Your task to perform on an android device: View the shopping cart on walmart. Search for asus rog on walmart, select the first entry, and add it to the cart. Image 0: 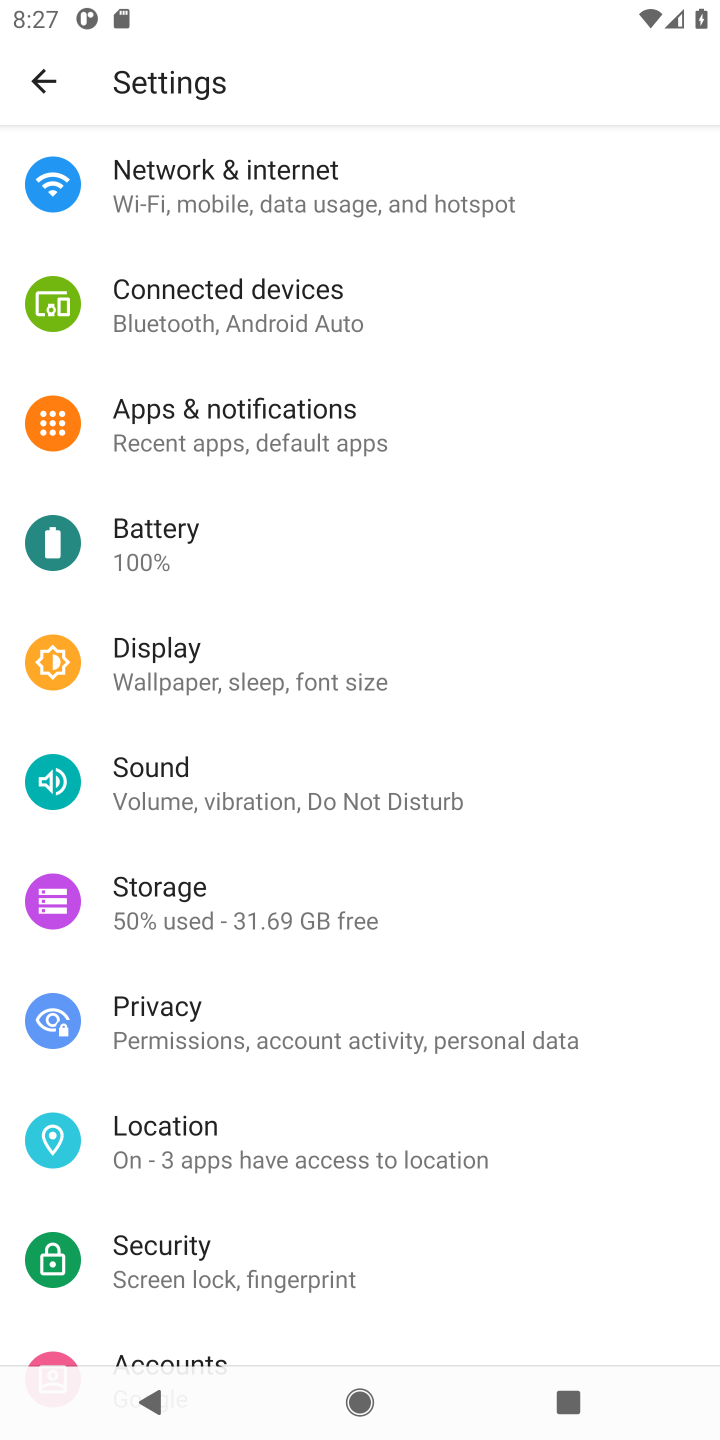
Step 0: press home button
Your task to perform on an android device: View the shopping cart on walmart. Search for asus rog on walmart, select the first entry, and add it to the cart. Image 1: 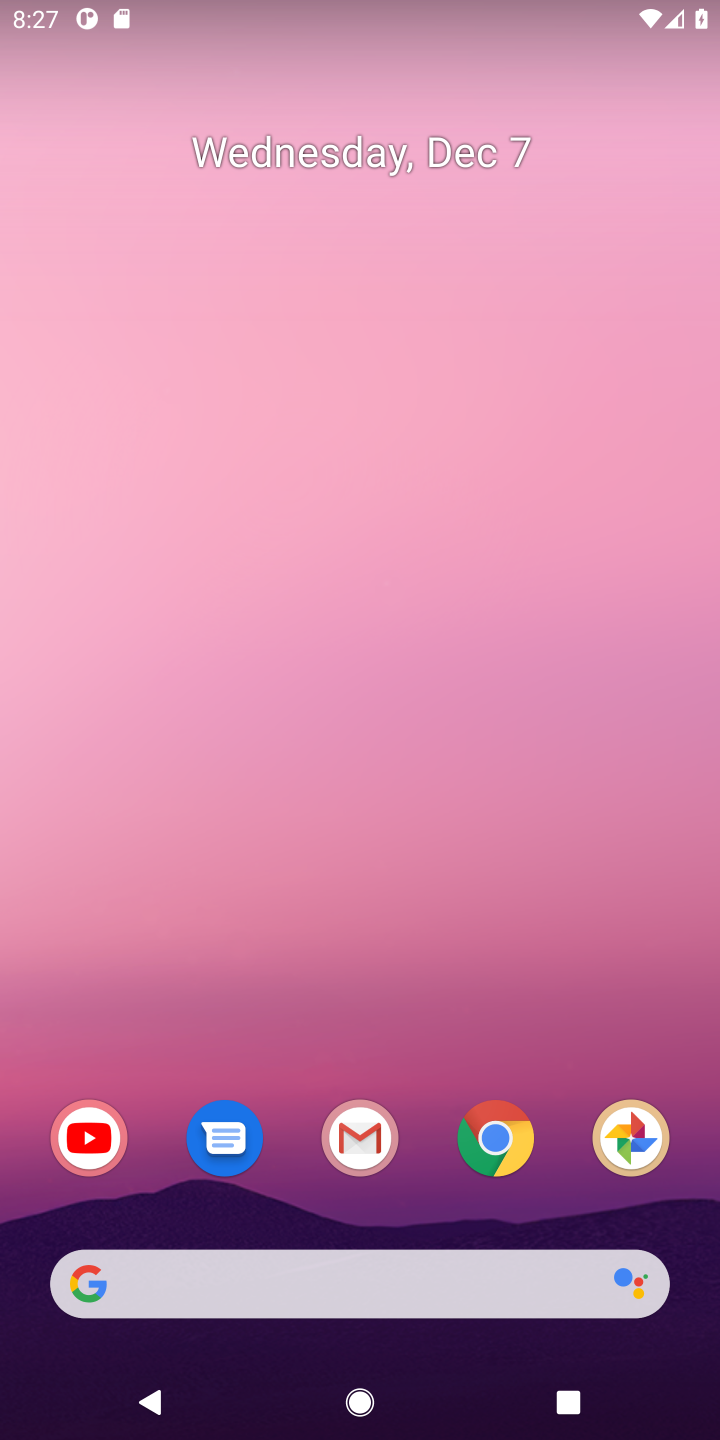
Step 1: click (168, 1275)
Your task to perform on an android device: View the shopping cart on walmart. Search for asus rog on walmart, select the first entry, and add it to the cart. Image 2: 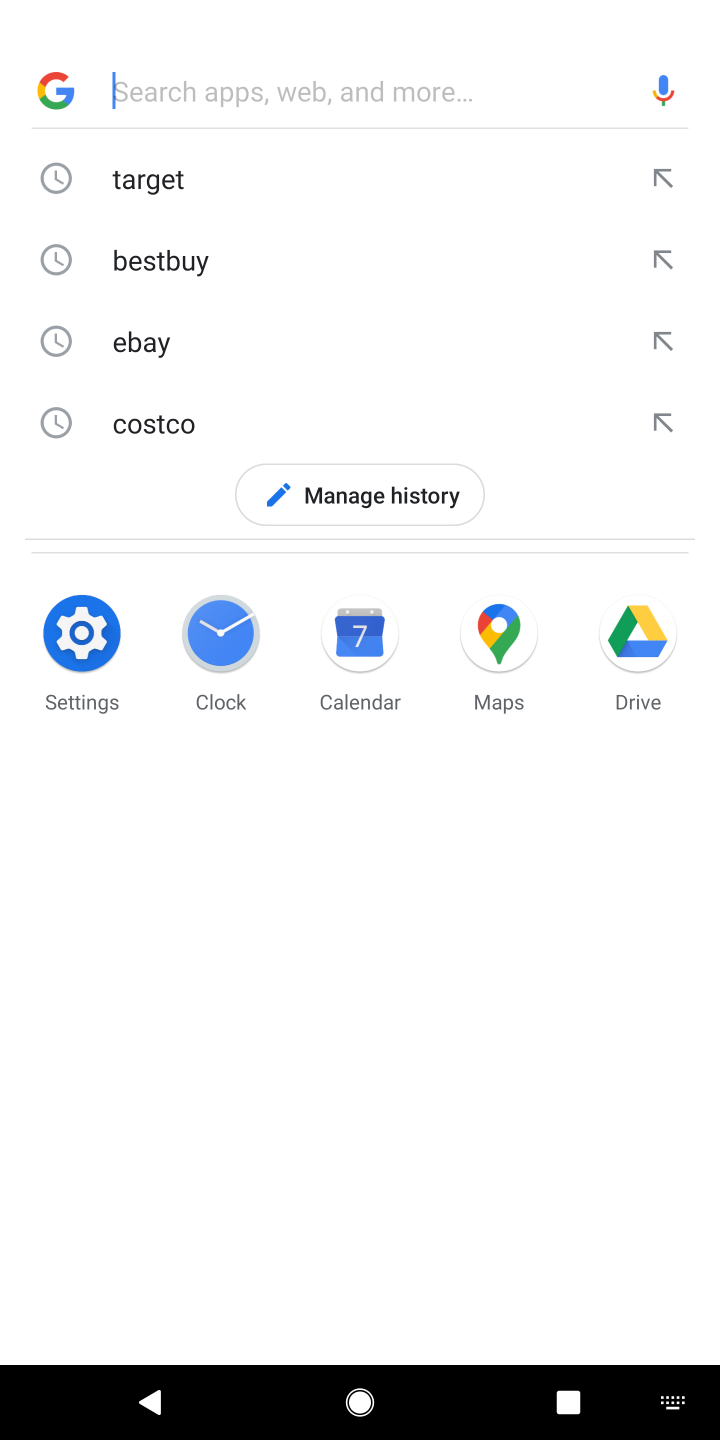
Step 2: type "walmart."
Your task to perform on an android device: View the shopping cart on walmart. Search for asus rog on walmart, select the first entry, and add it to the cart. Image 3: 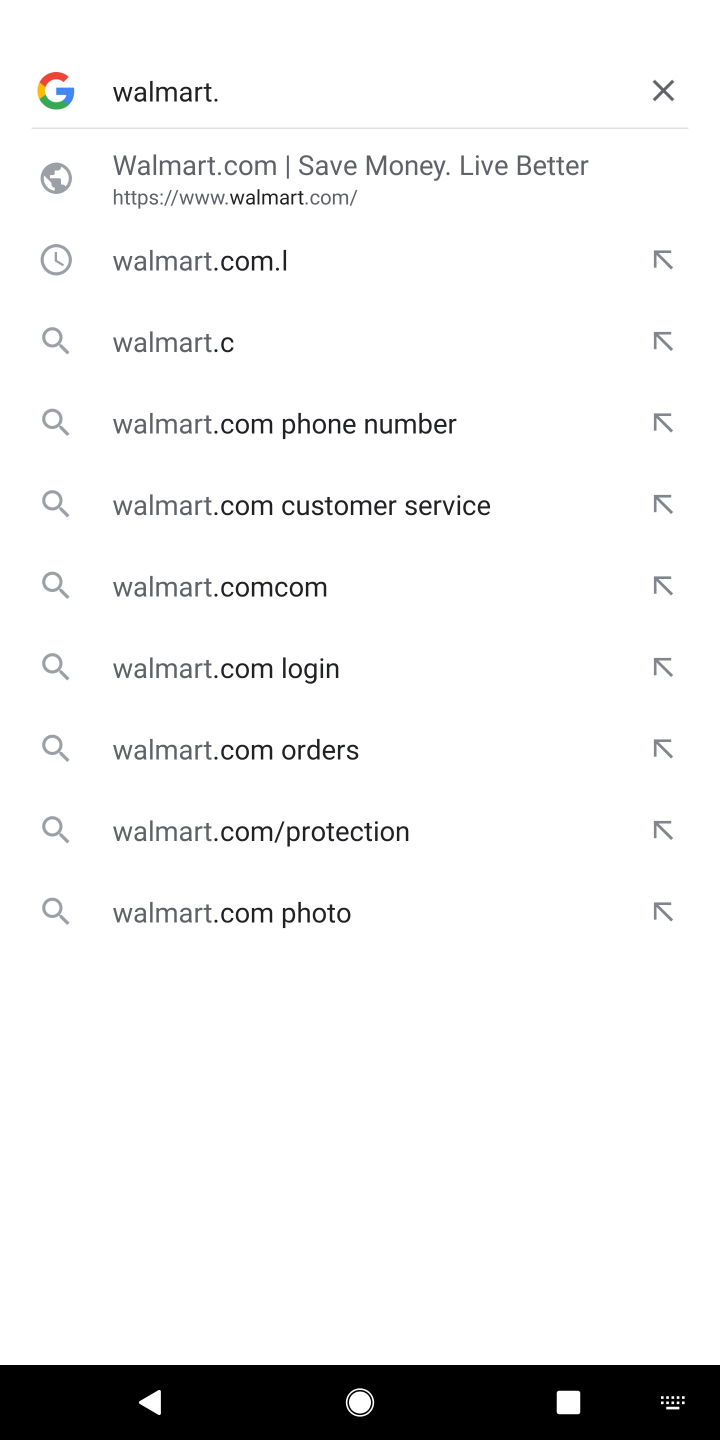
Step 3: press enter
Your task to perform on an android device: View the shopping cart on walmart. Search for asus rog on walmart, select the first entry, and add it to the cart. Image 4: 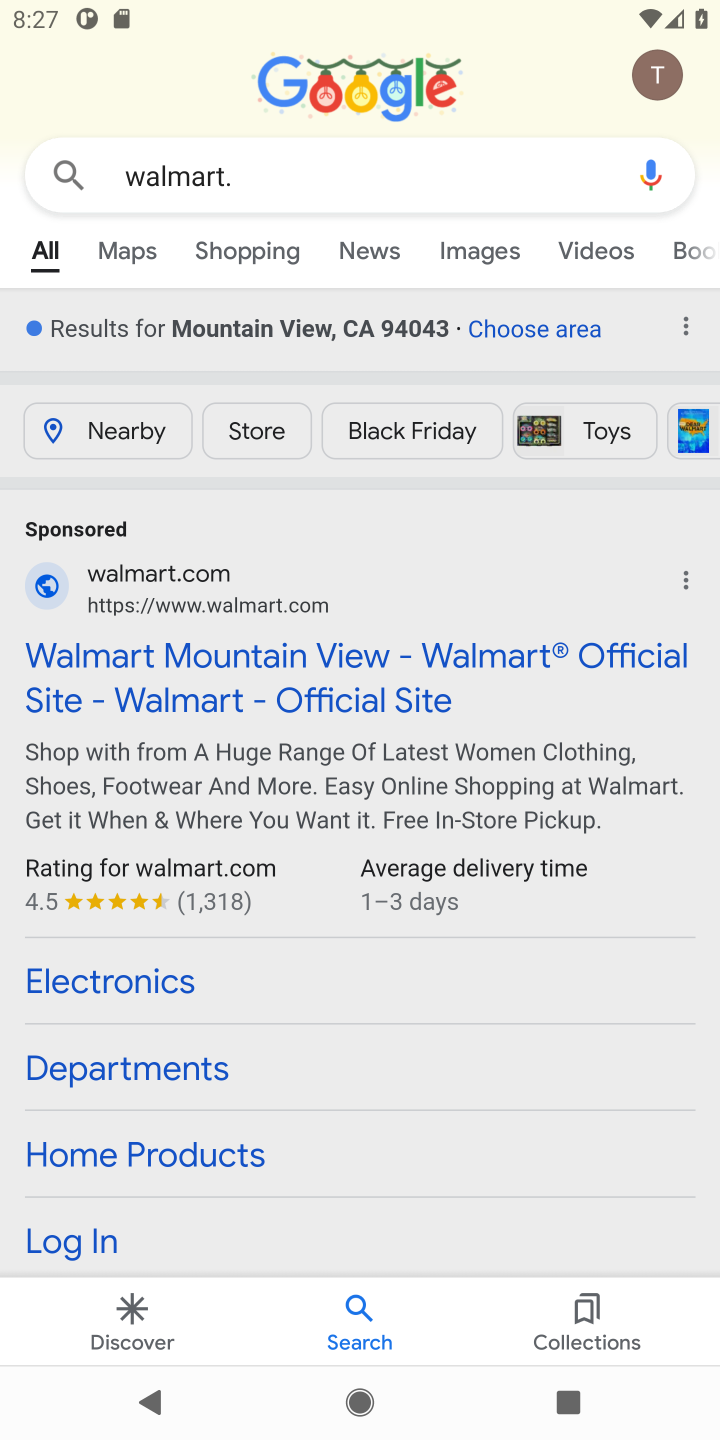
Step 4: click (340, 679)
Your task to perform on an android device: View the shopping cart on walmart. Search for asus rog on walmart, select the first entry, and add it to the cart. Image 5: 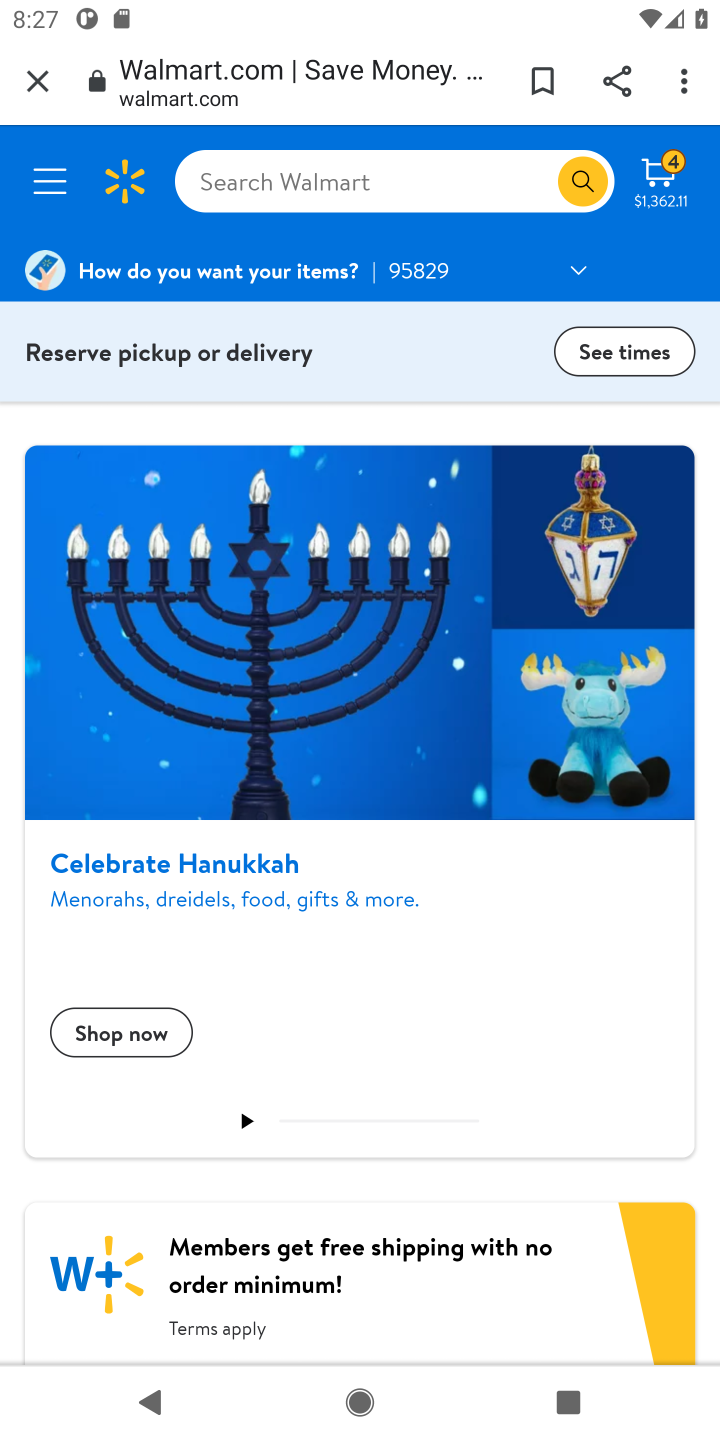
Step 5: click (658, 163)
Your task to perform on an android device: View the shopping cart on walmart. Search for asus rog on walmart, select the first entry, and add it to the cart. Image 6: 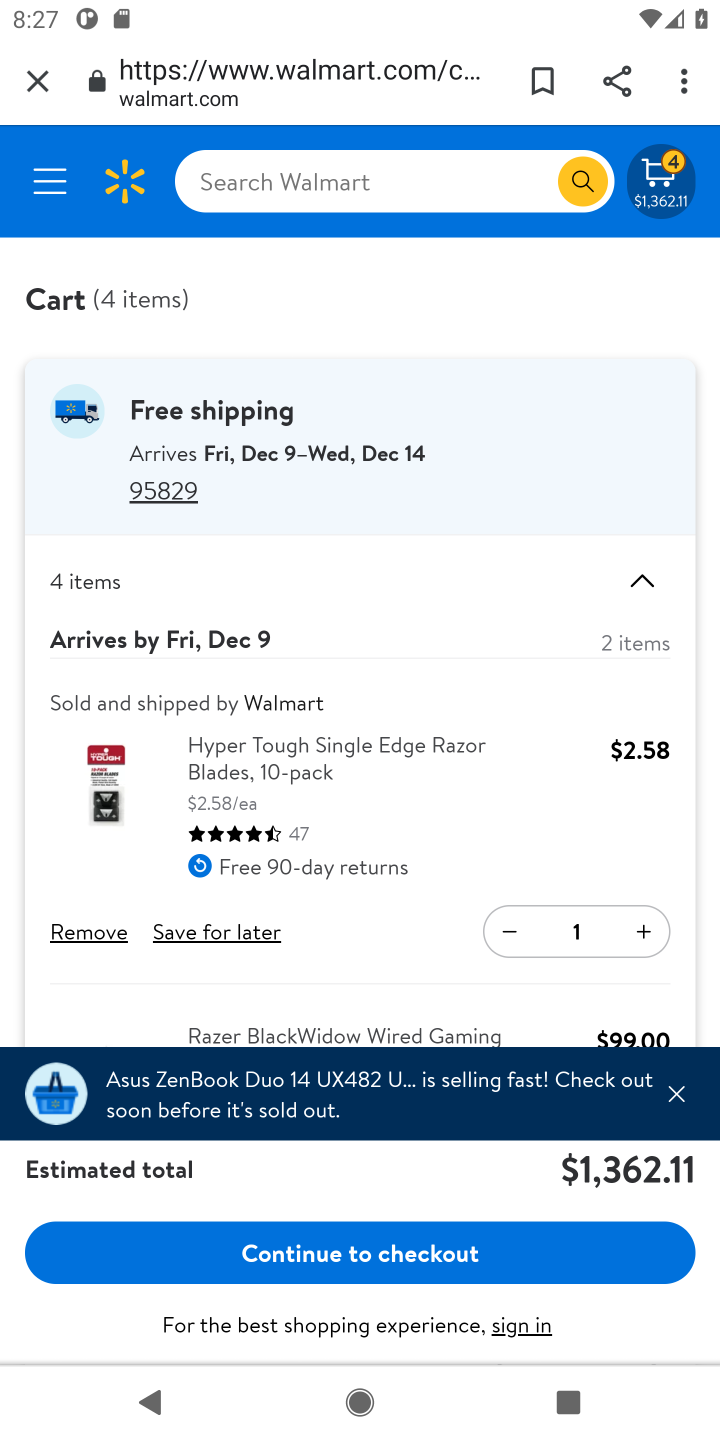
Step 6: click (353, 181)
Your task to perform on an android device: View the shopping cart on walmart. Search for asus rog on walmart, select the first entry, and add it to the cart. Image 7: 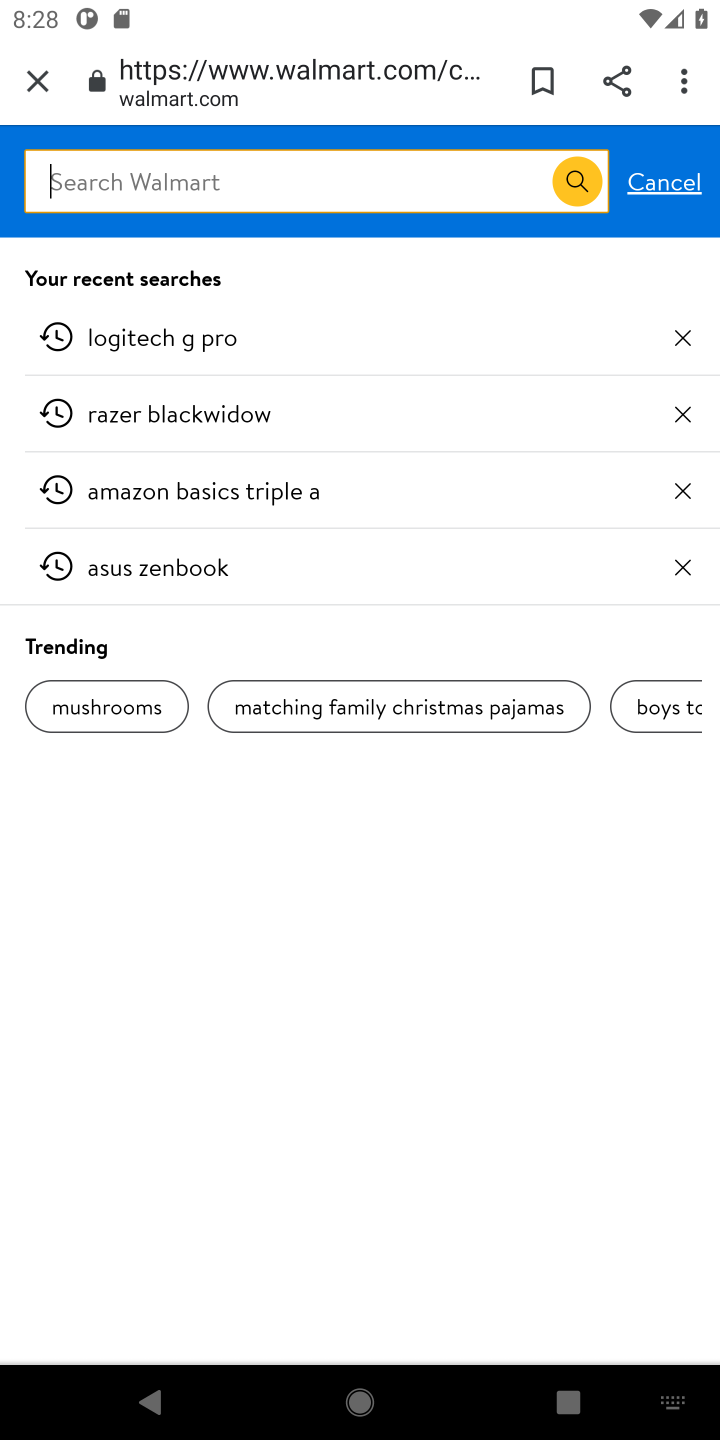
Step 7: type "asus rog"
Your task to perform on an android device: View the shopping cart on walmart. Search for asus rog on walmart, select the first entry, and add it to the cart. Image 8: 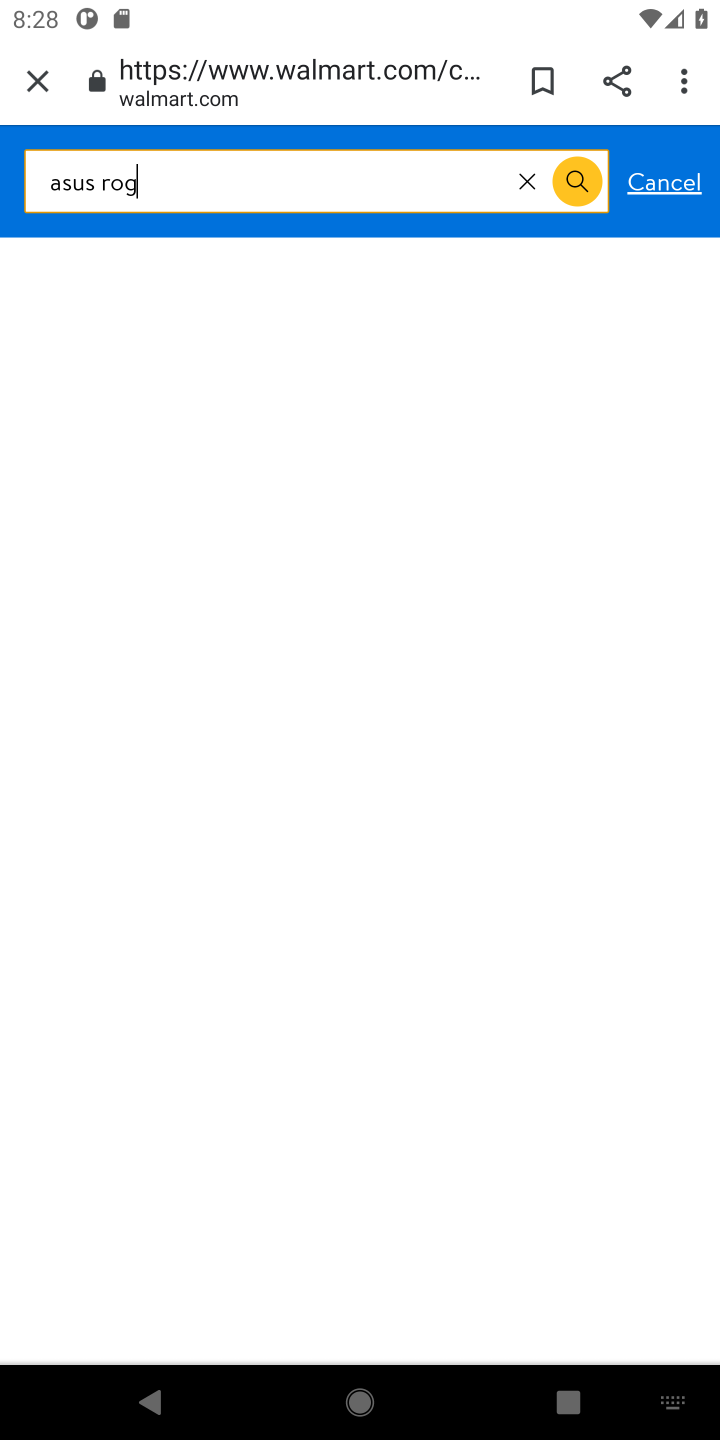
Step 8: press enter
Your task to perform on an android device: View the shopping cart on walmart. Search for asus rog on walmart, select the first entry, and add it to the cart. Image 9: 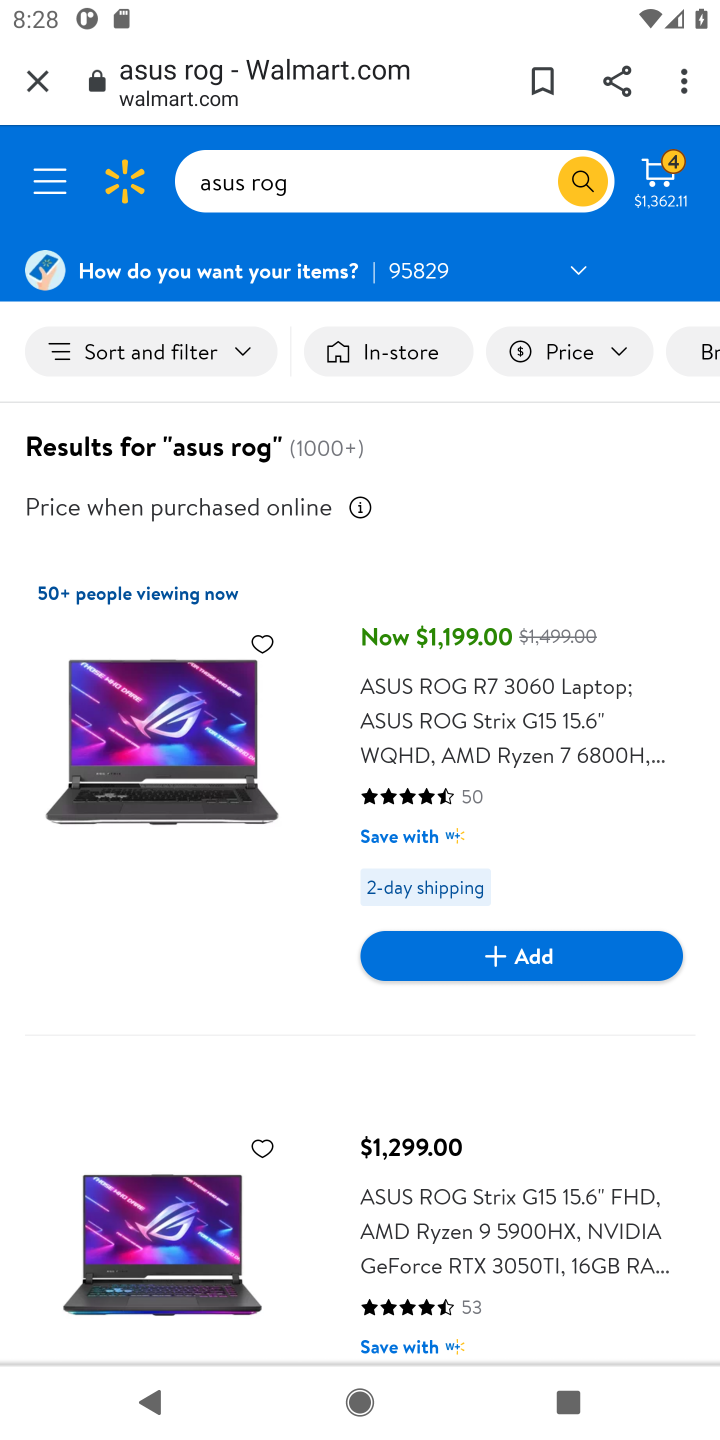
Step 9: click (496, 958)
Your task to perform on an android device: View the shopping cart on walmart. Search for asus rog on walmart, select the first entry, and add it to the cart. Image 10: 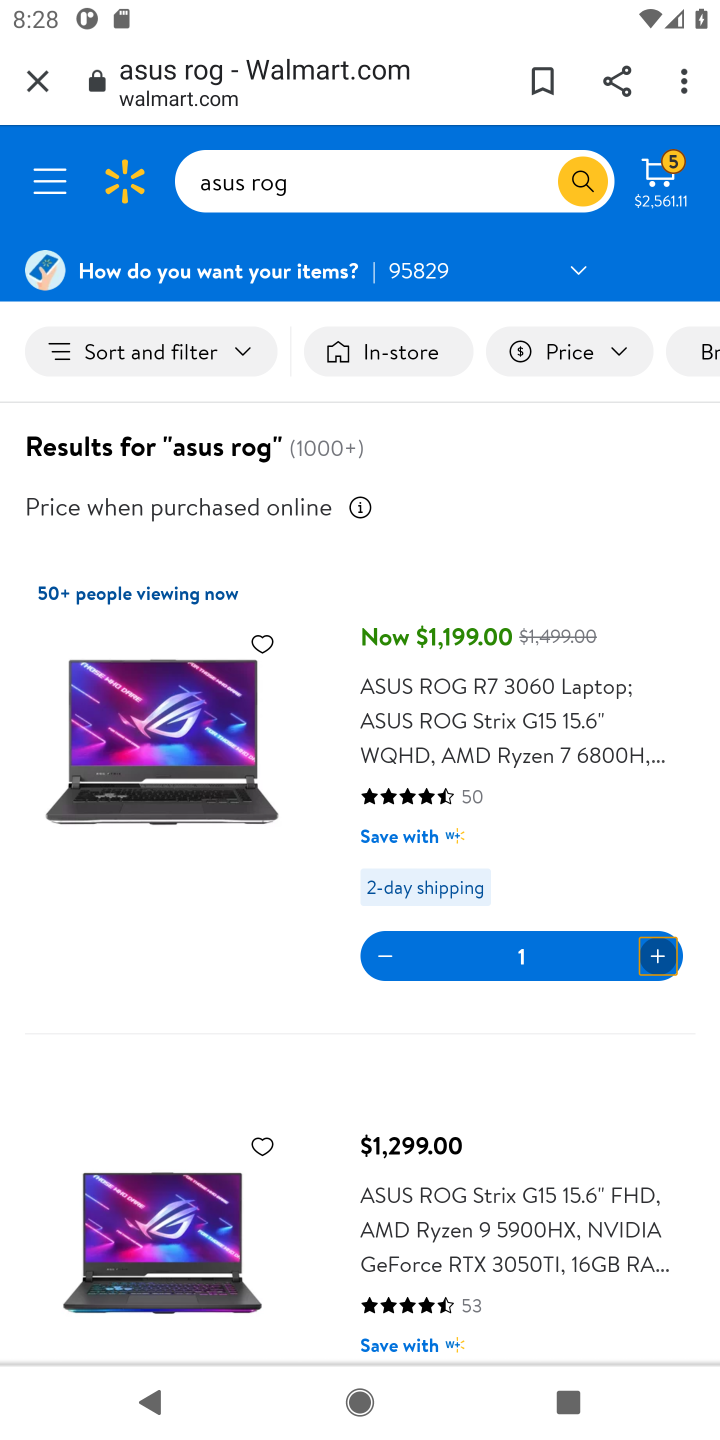
Step 10: task complete